Your task to perform on an android device: turn off smart reply in the gmail app Image 0: 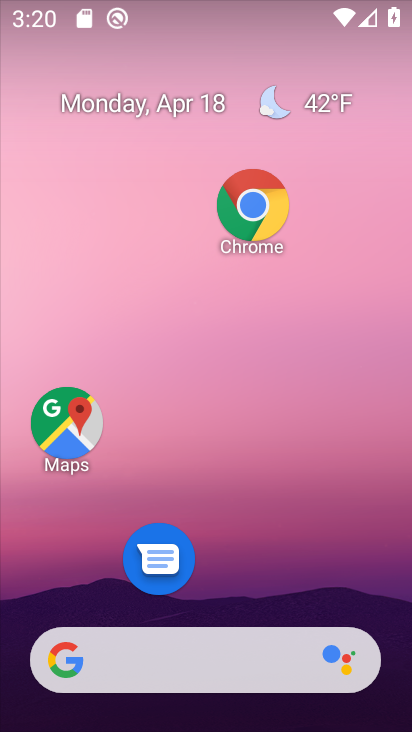
Step 0: drag from (255, 385) to (275, 160)
Your task to perform on an android device: turn off smart reply in the gmail app Image 1: 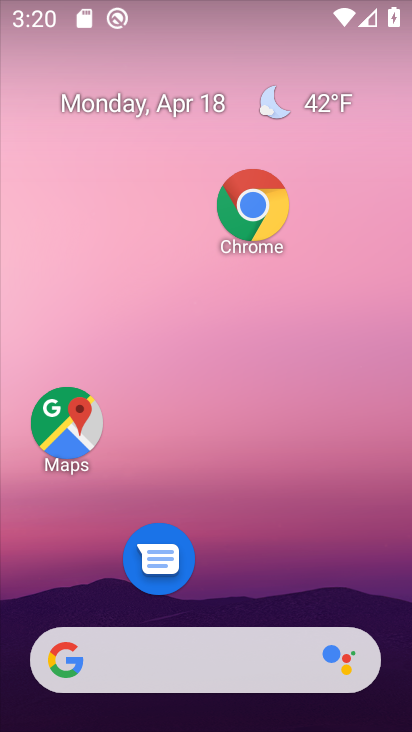
Step 1: drag from (212, 541) to (226, 116)
Your task to perform on an android device: turn off smart reply in the gmail app Image 2: 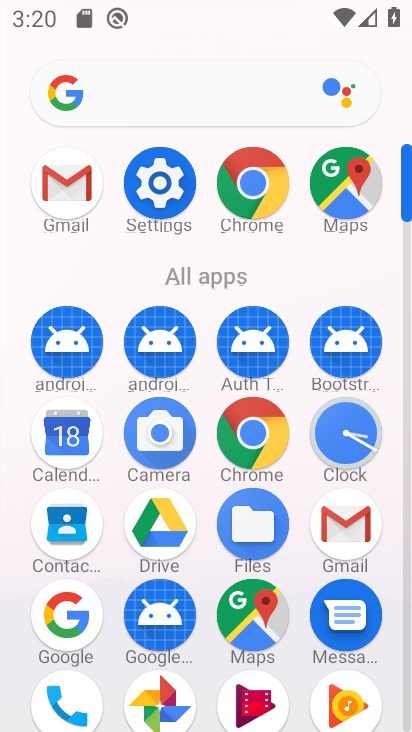
Step 2: click (335, 525)
Your task to perform on an android device: turn off smart reply in the gmail app Image 3: 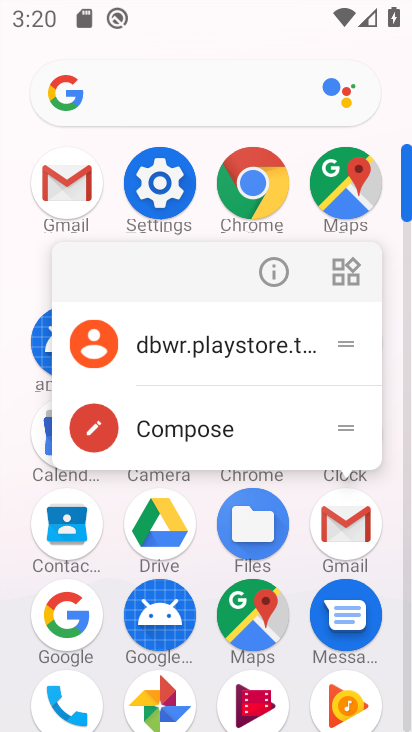
Step 3: click (352, 507)
Your task to perform on an android device: turn off smart reply in the gmail app Image 4: 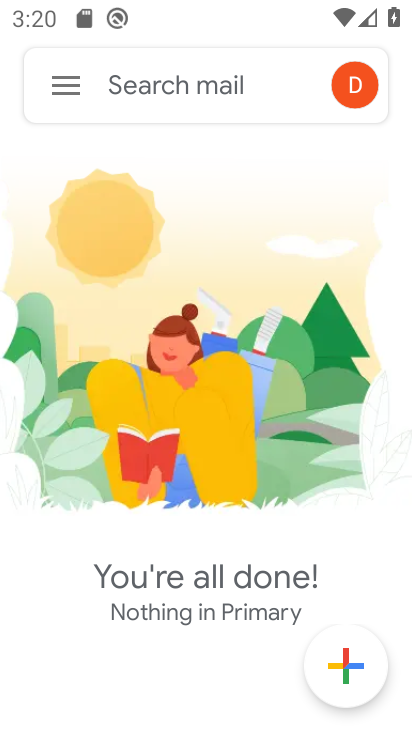
Step 4: click (55, 71)
Your task to perform on an android device: turn off smart reply in the gmail app Image 5: 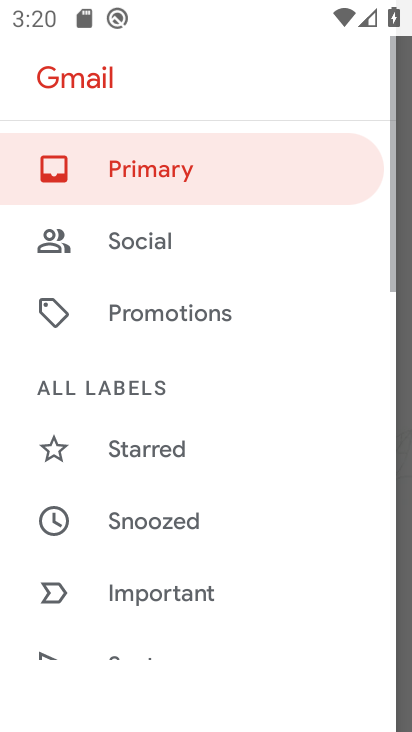
Step 5: drag from (114, 573) to (179, 251)
Your task to perform on an android device: turn off smart reply in the gmail app Image 6: 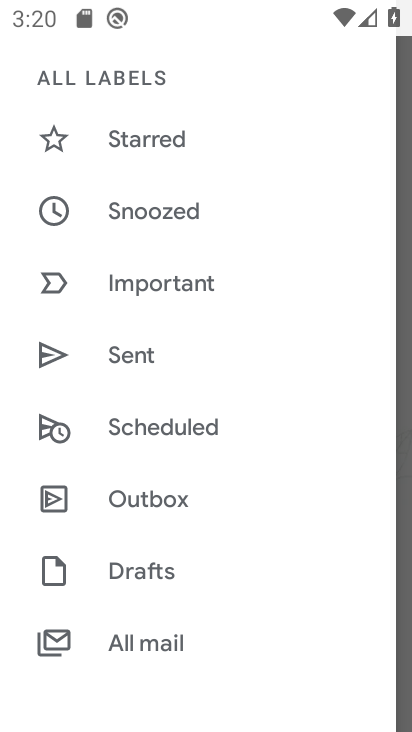
Step 6: drag from (141, 569) to (261, 213)
Your task to perform on an android device: turn off smart reply in the gmail app Image 7: 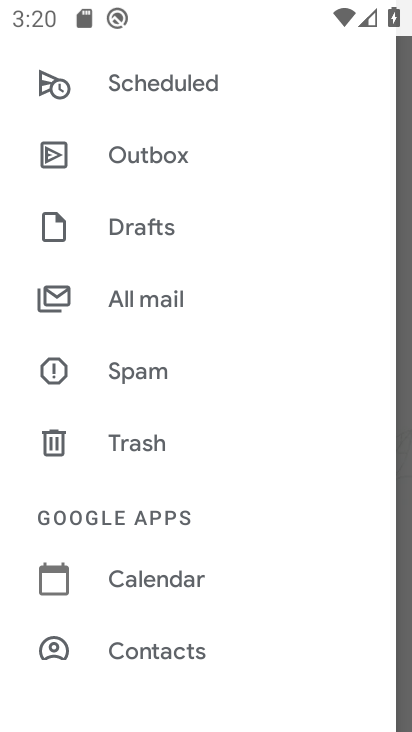
Step 7: drag from (189, 527) to (287, 195)
Your task to perform on an android device: turn off smart reply in the gmail app Image 8: 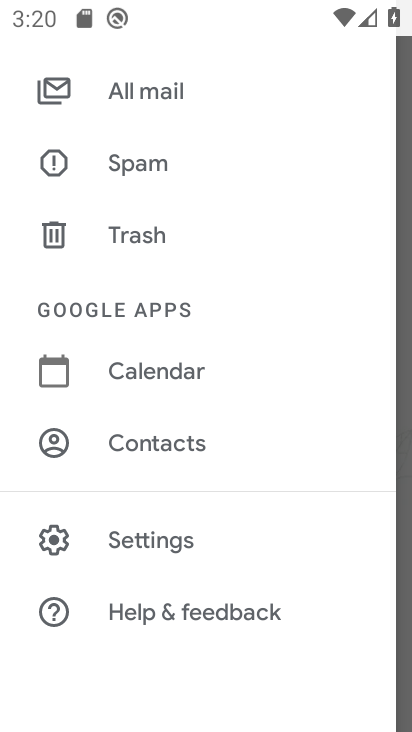
Step 8: click (142, 545)
Your task to perform on an android device: turn off smart reply in the gmail app Image 9: 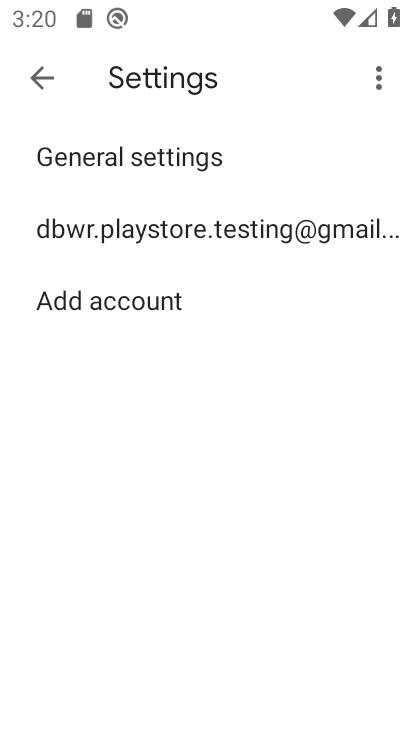
Step 9: click (159, 230)
Your task to perform on an android device: turn off smart reply in the gmail app Image 10: 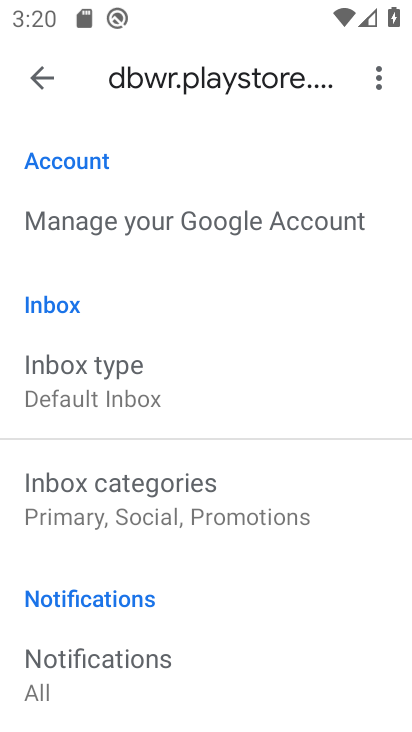
Step 10: task complete